Your task to perform on an android device: Open CNN.com Image 0: 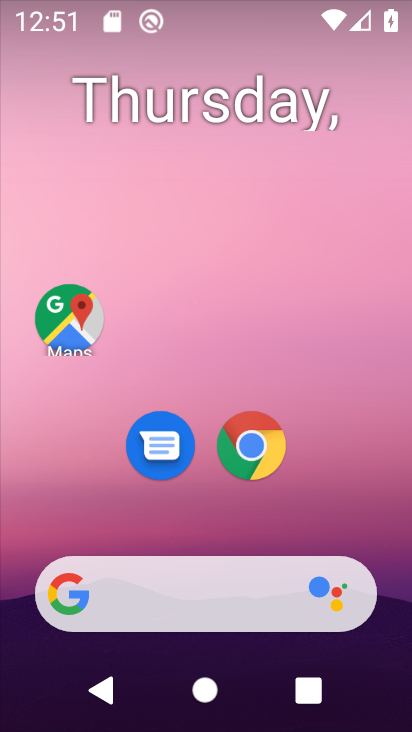
Step 0: drag from (282, 506) to (319, 117)
Your task to perform on an android device: Open CNN.com Image 1: 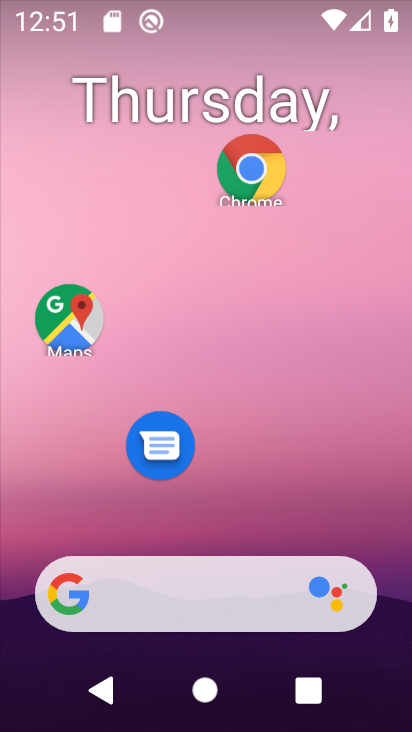
Step 1: drag from (218, 558) to (189, 147)
Your task to perform on an android device: Open CNN.com Image 2: 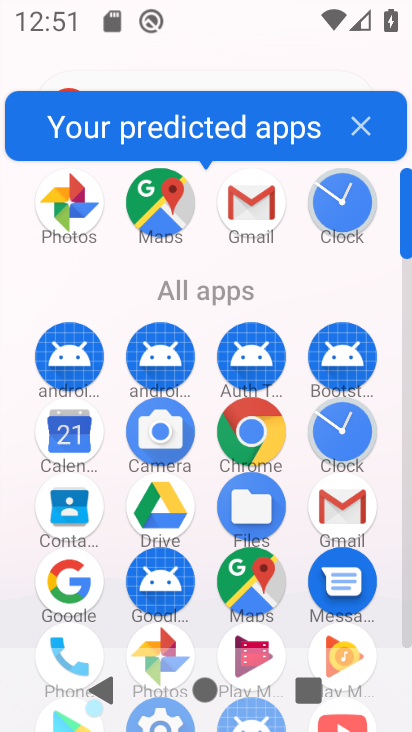
Step 2: click (248, 416)
Your task to perform on an android device: Open CNN.com Image 3: 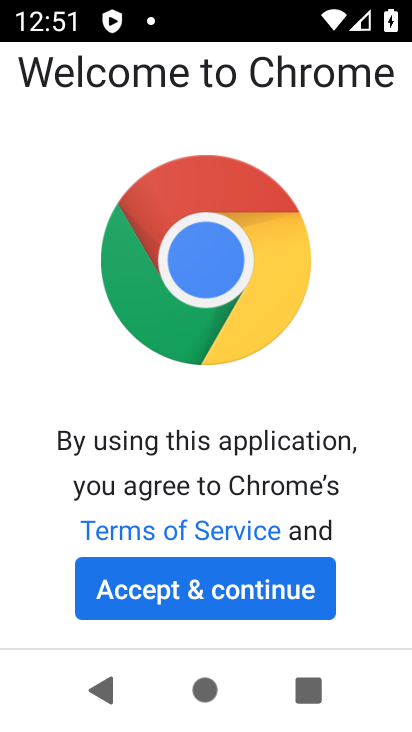
Step 3: click (180, 577)
Your task to perform on an android device: Open CNN.com Image 4: 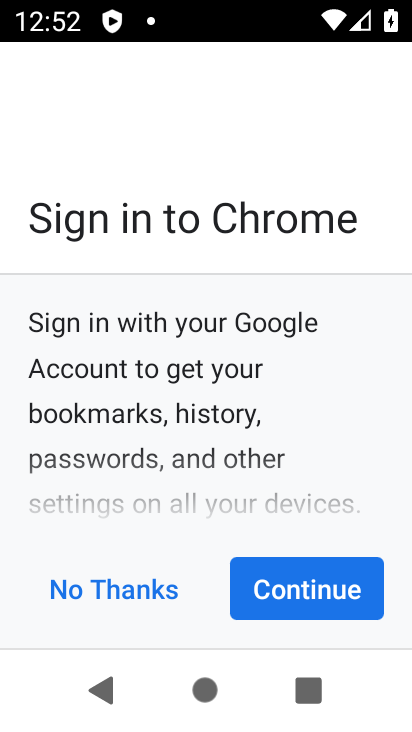
Step 4: click (269, 583)
Your task to perform on an android device: Open CNN.com Image 5: 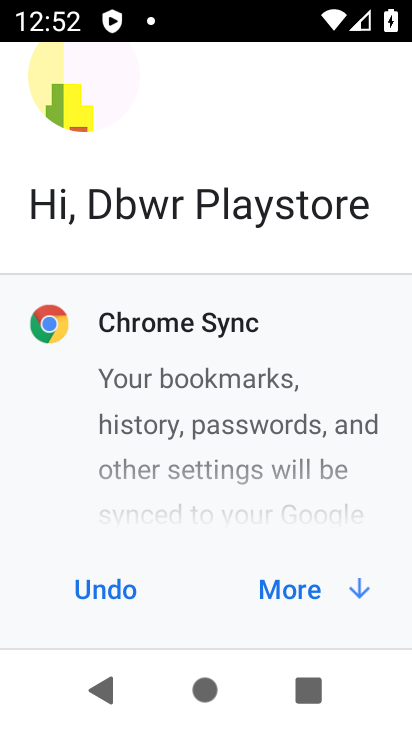
Step 5: click (354, 584)
Your task to perform on an android device: Open CNN.com Image 6: 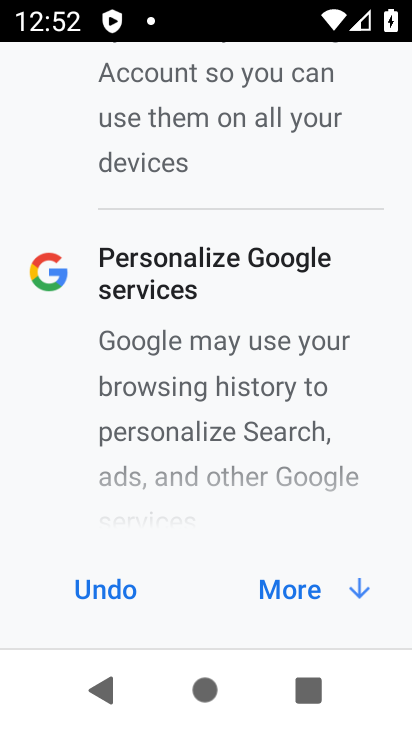
Step 6: click (353, 590)
Your task to perform on an android device: Open CNN.com Image 7: 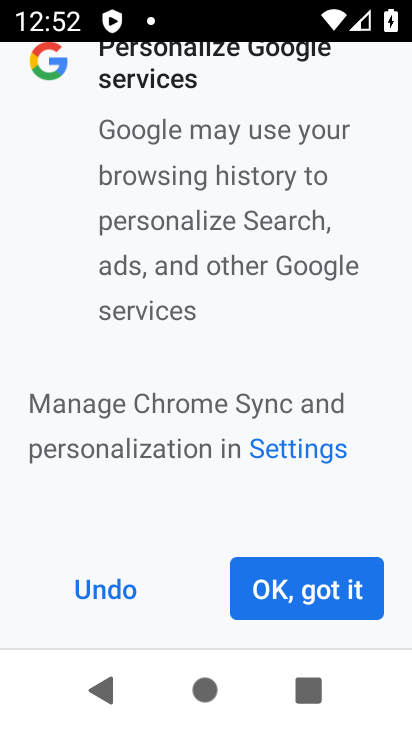
Step 7: click (336, 584)
Your task to perform on an android device: Open CNN.com Image 8: 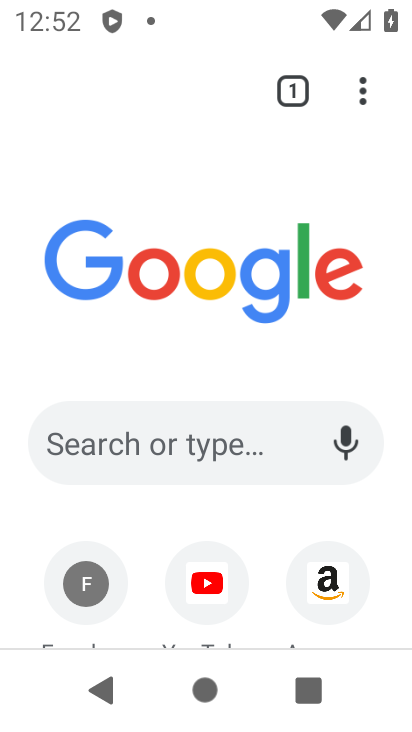
Step 8: click (132, 443)
Your task to perform on an android device: Open CNN.com Image 9: 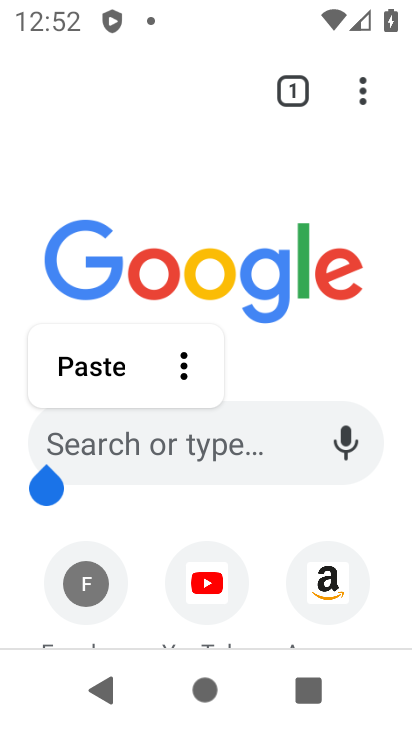
Step 9: click (147, 447)
Your task to perform on an android device: Open CNN.com Image 10: 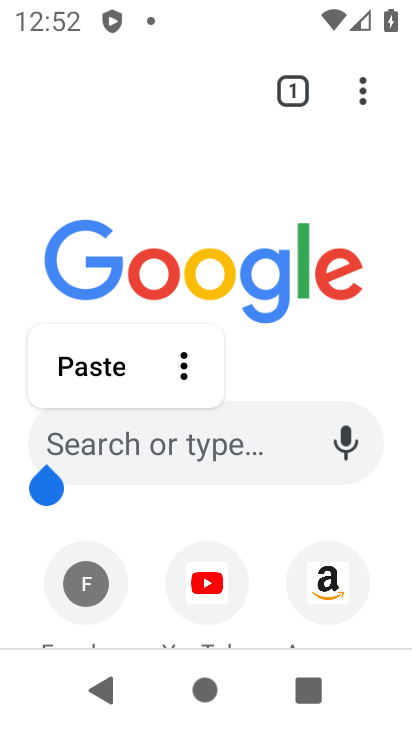
Step 10: click (241, 185)
Your task to perform on an android device: Open CNN.com Image 11: 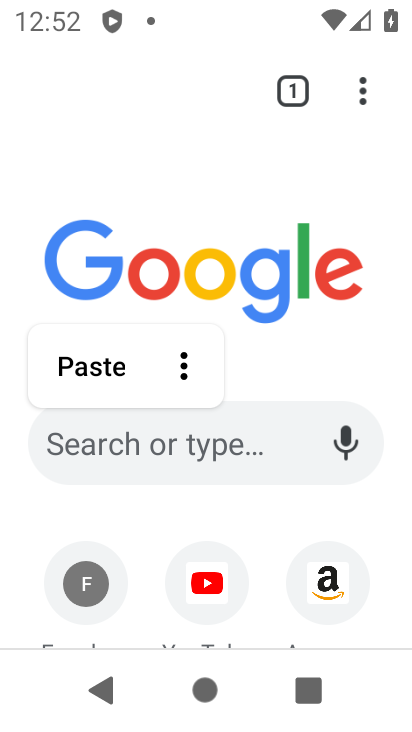
Step 11: click (107, 450)
Your task to perform on an android device: Open CNN.com Image 12: 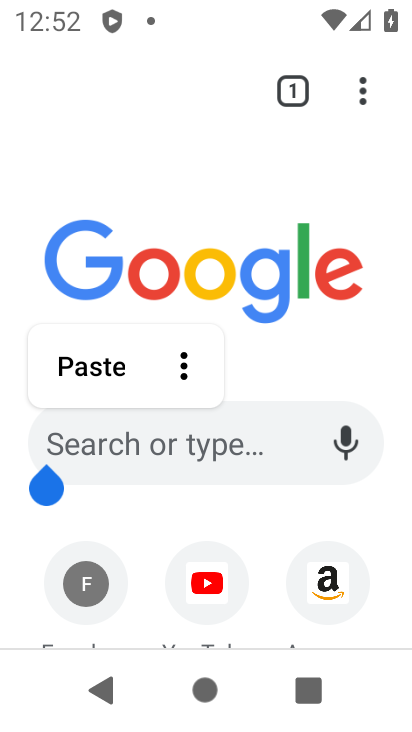
Step 12: drag from (214, 487) to (302, 199)
Your task to perform on an android device: Open CNN.com Image 13: 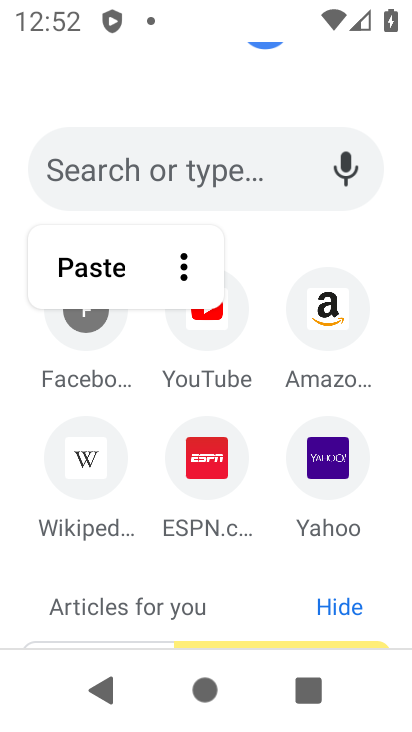
Step 13: click (149, 173)
Your task to perform on an android device: Open CNN.com Image 14: 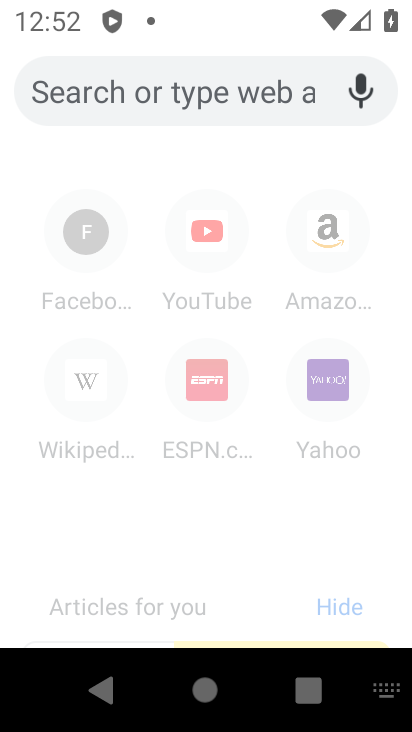
Step 14: click (383, 696)
Your task to perform on an android device: Open CNN.com Image 15: 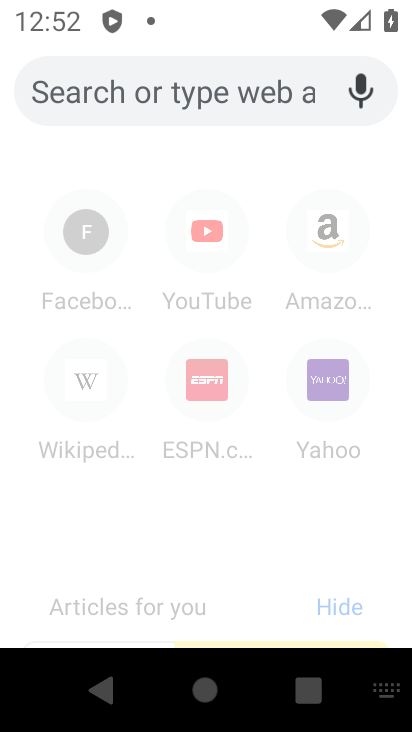
Step 15: drag from (393, 685) to (397, 638)
Your task to perform on an android device: Open CNN.com Image 16: 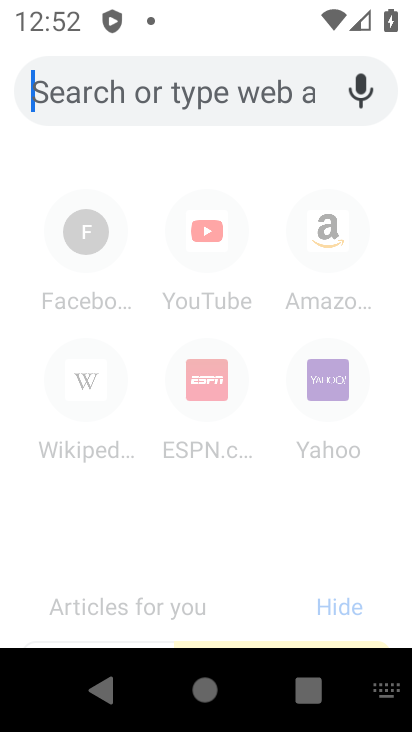
Step 16: click (395, 695)
Your task to perform on an android device: Open CNN.com Image 17: 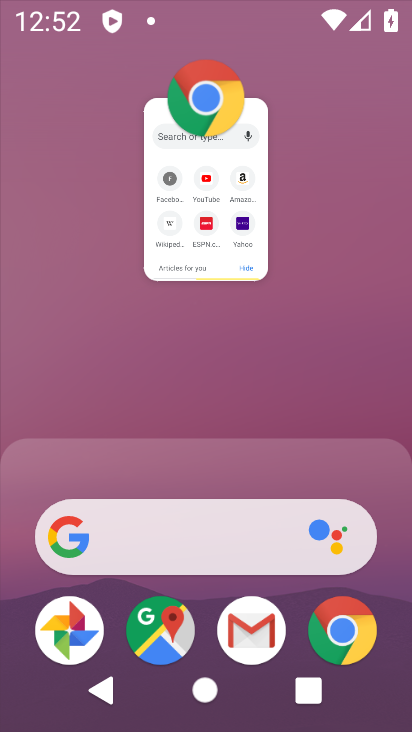
Step 17: click (206, 199)
Your task to perform on an android device: Open CNN.com Image 18: 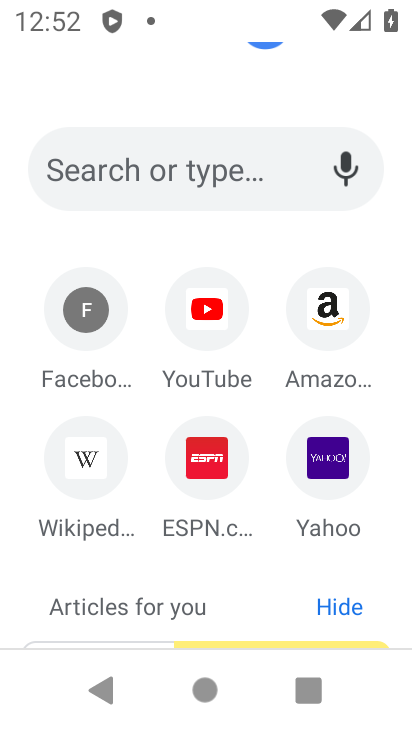
Step 18: drag from (244, 540) to (217, 563)
Your task to perform on an android device: Open CNN.com Image 19: 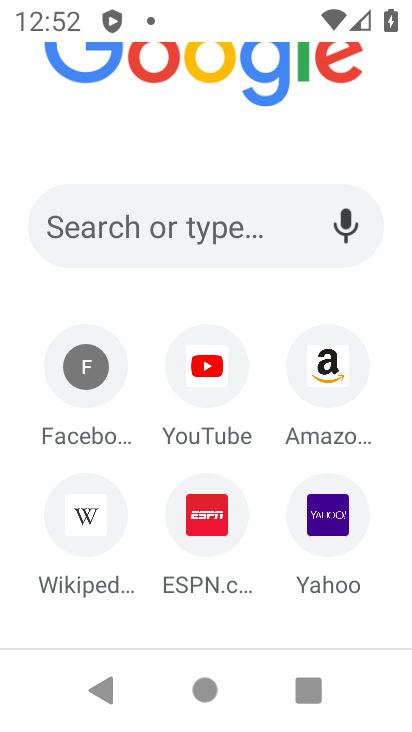
Step 19: click (187, 241)
Your task to perform on an android device: Open CNN.com Image 20: 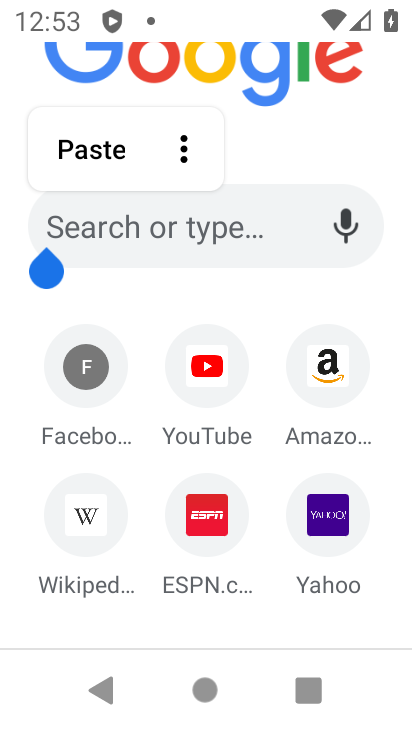
Step 20: click (187, 242)
Your task to perform on an android device: Open CNN.com Image 21: 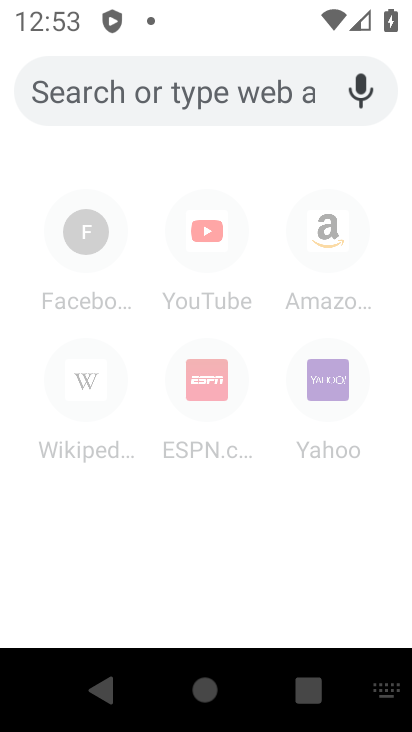
Step 21: click (178, 226)
Your task to perform on an android device: Open CNN.com Image 22: 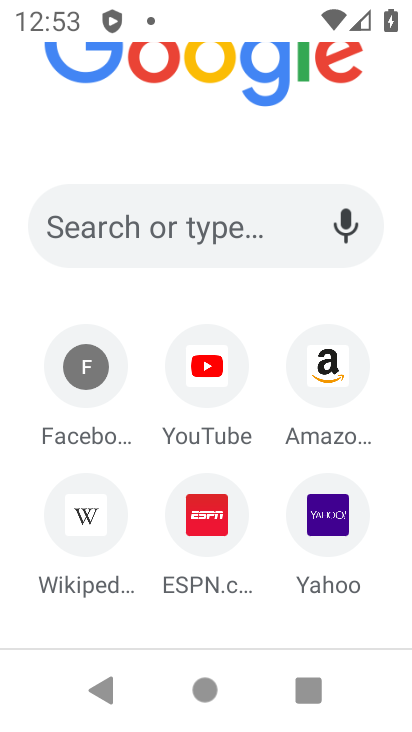
Step 22: click (170, 236)
Your task to perform on an android device: Open CNN.com Image 23: 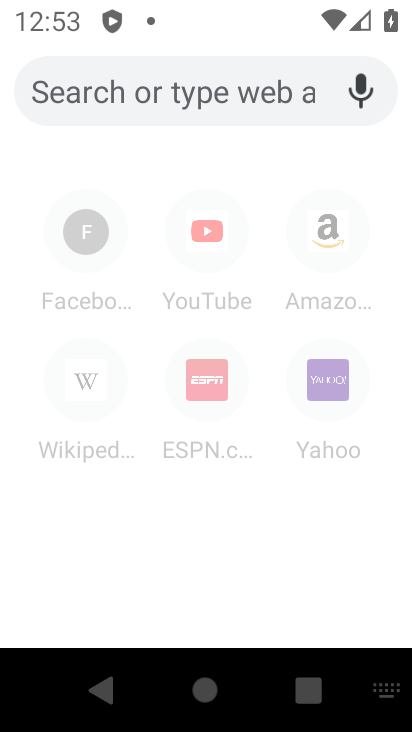
Step 23: click (385, 690)
Your task to perform on an android device: Open CNN.com Image 24: 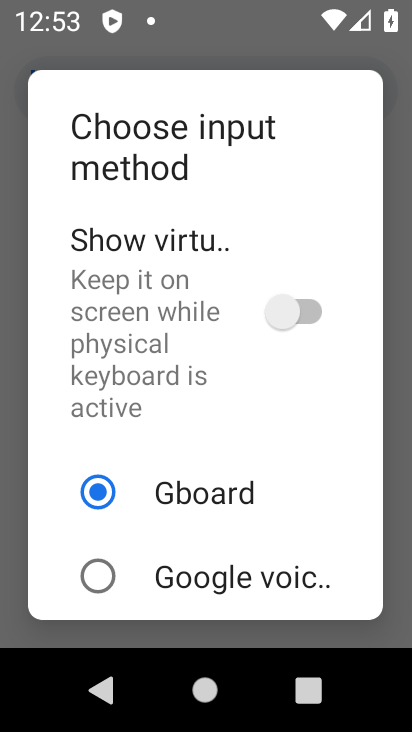
Step 24: click (296, 300)
Your task to perform on an android device: Open CNN.com Image 25: 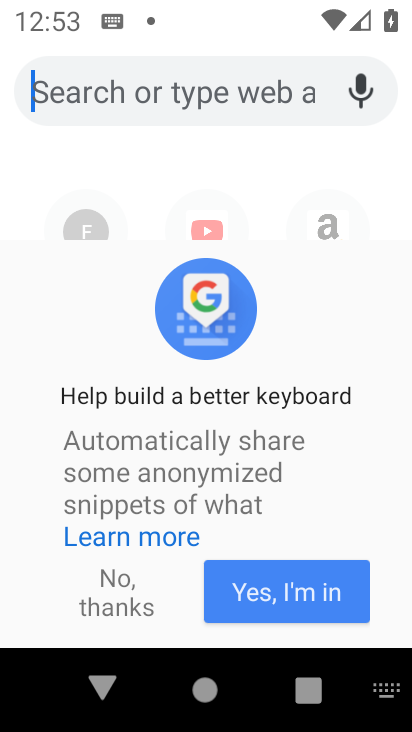
Step 25: click (130, 587)
Your task to perform on an android device: Open CNN.com Image 26: 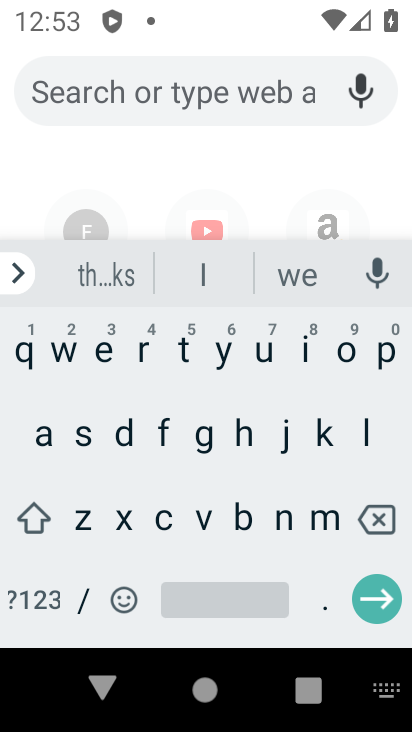
Step 26: click (161, 517)
Your task to perform on an android device: Open CNN.com Image 27: 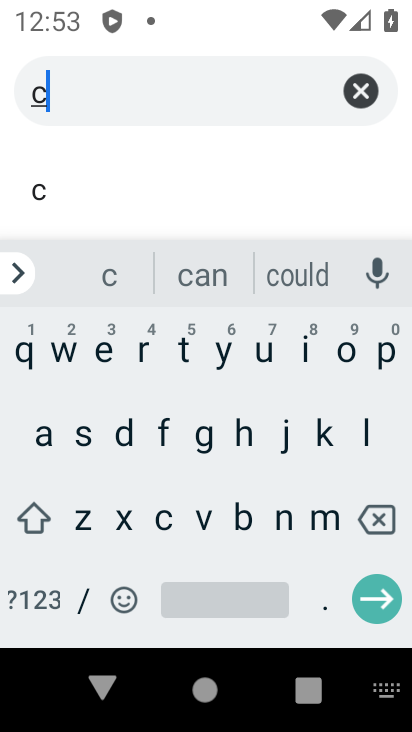
Step 27: click (274, 517)
Your task to perform on an android device: Open CNN.com Image 28: 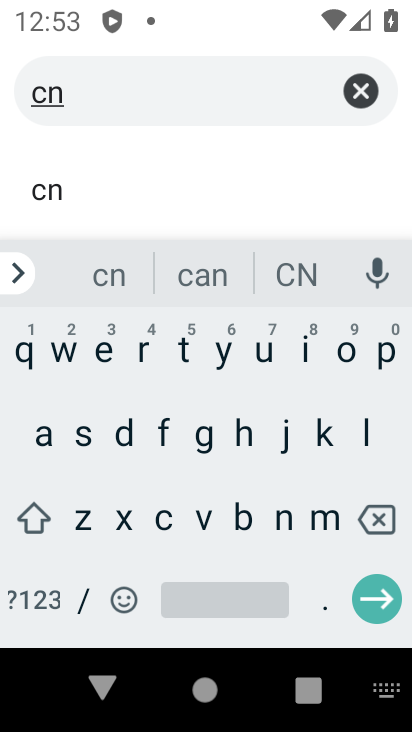
Step 28: click (278, 518)
Your task to perform on an android device: Open CNN.com Image 29: 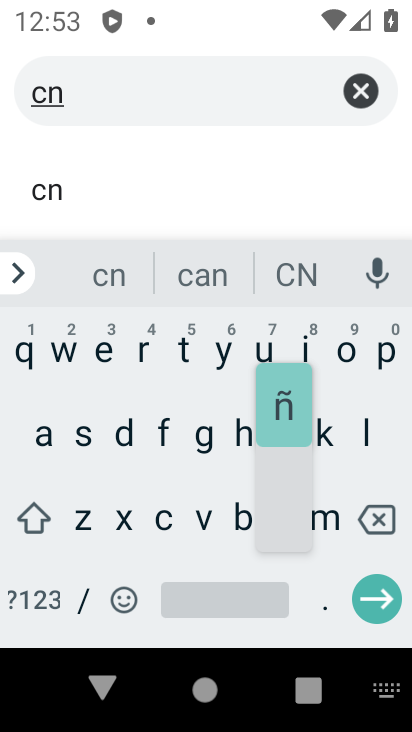
Step 29: click (282, 519)
Your task to perform on an android device: Open CNN.com Image 30: 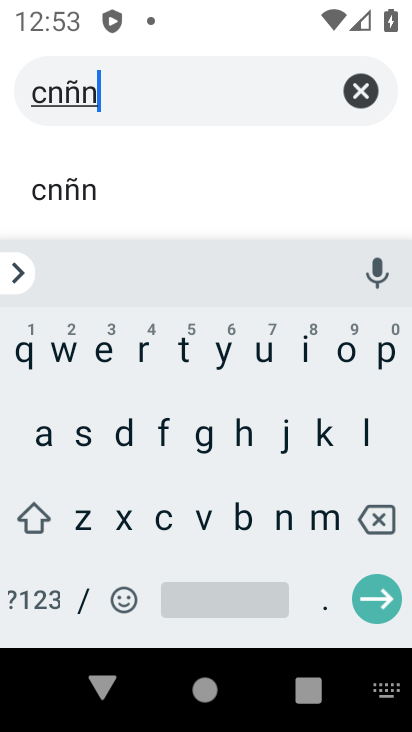
Step 30: click (371, 519)
Your task to perform on an android device: Open CNN.com Image 31: 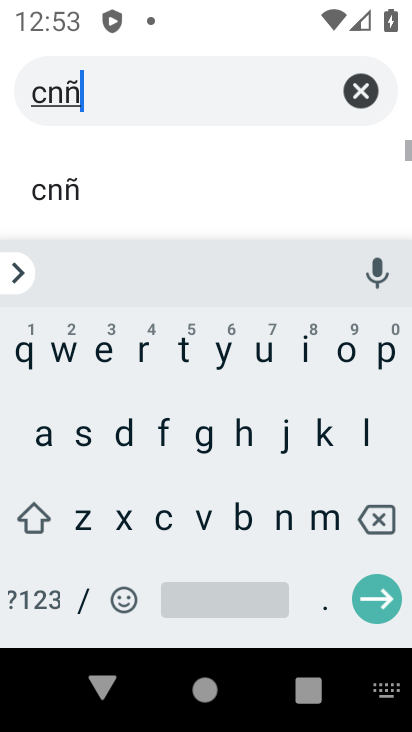
Step 31: click (371, 519)
Your task to perform on an android device: Open CNN.com Image 32: 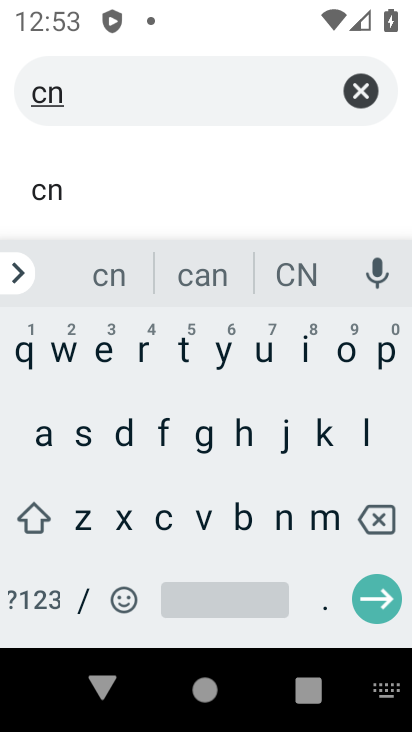
Step 32: click (282, 514)
Your task to perform on an android device: Open CNN.com Image 33: 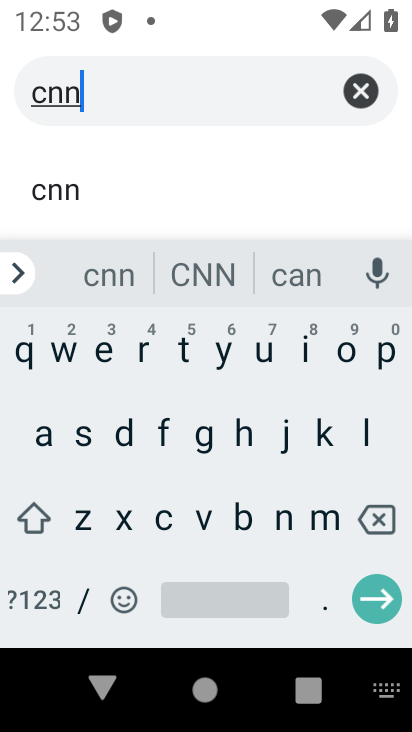
Step 33: click (377, 591)
Your task to perform on an android device: Open CNN.com Image 34: 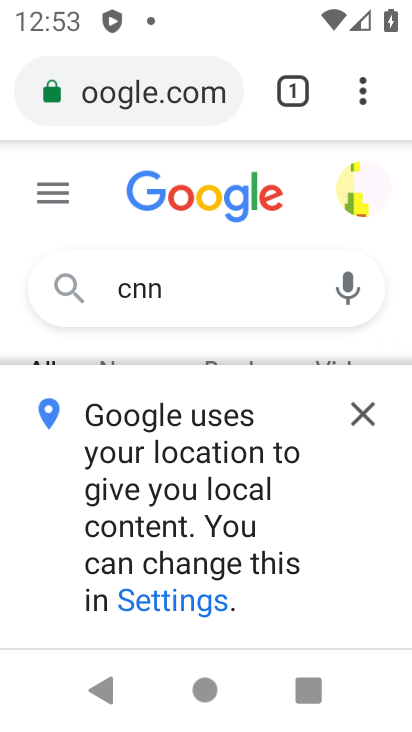
Step 34: click (352, 415)
Your task to perform on an android device: Open CNN.com Image 35: 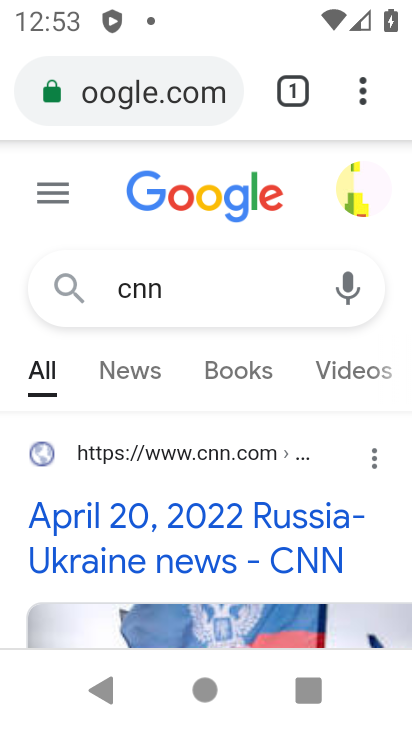
Step 35: click (110, 520)
Your task to perform on an android device: Open CNN.com Image 36: 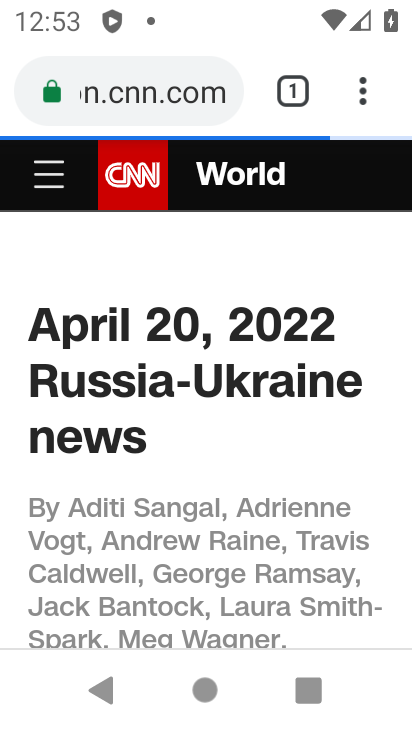
Step 36: task complete